Your task to perform on an android device: Open the contacts Image 0: 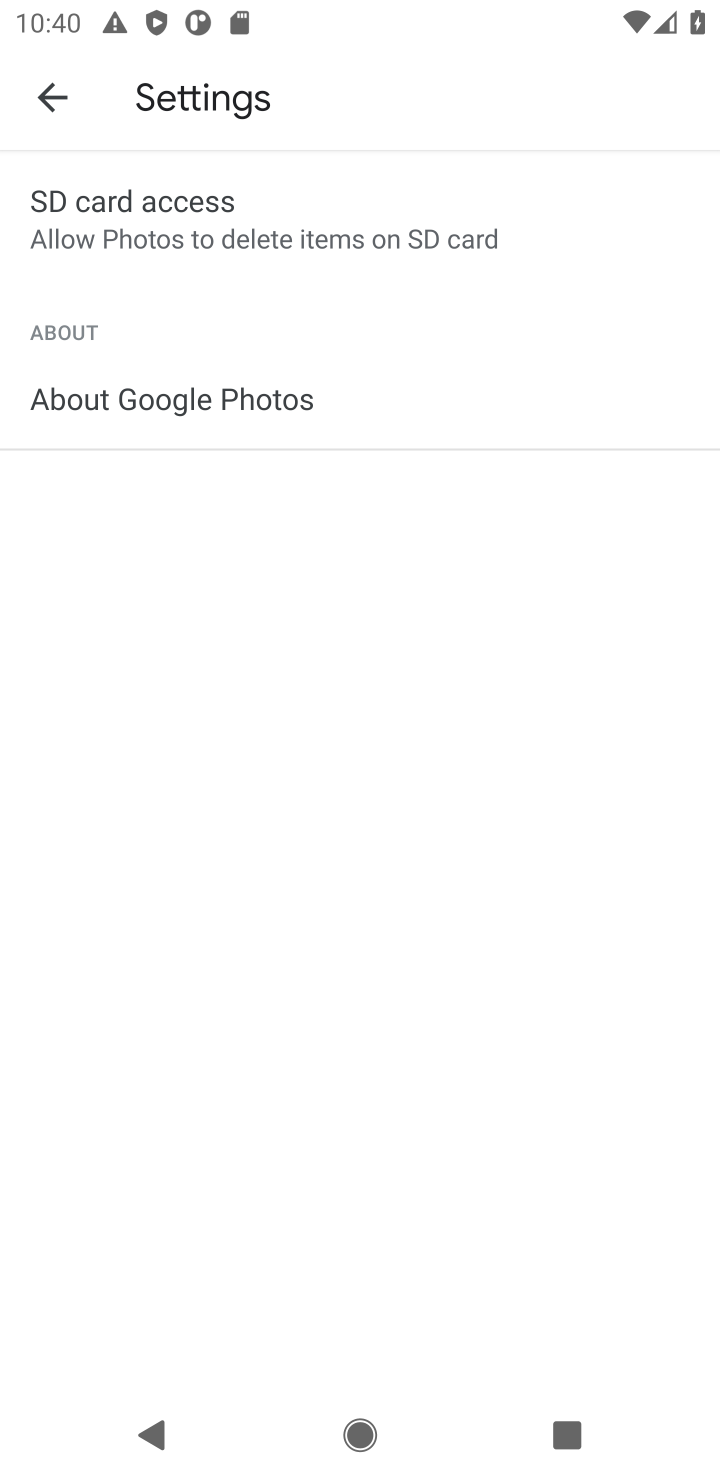
Step 0: press home button
Your task to perform on an android device: Open the contacts Image 1: 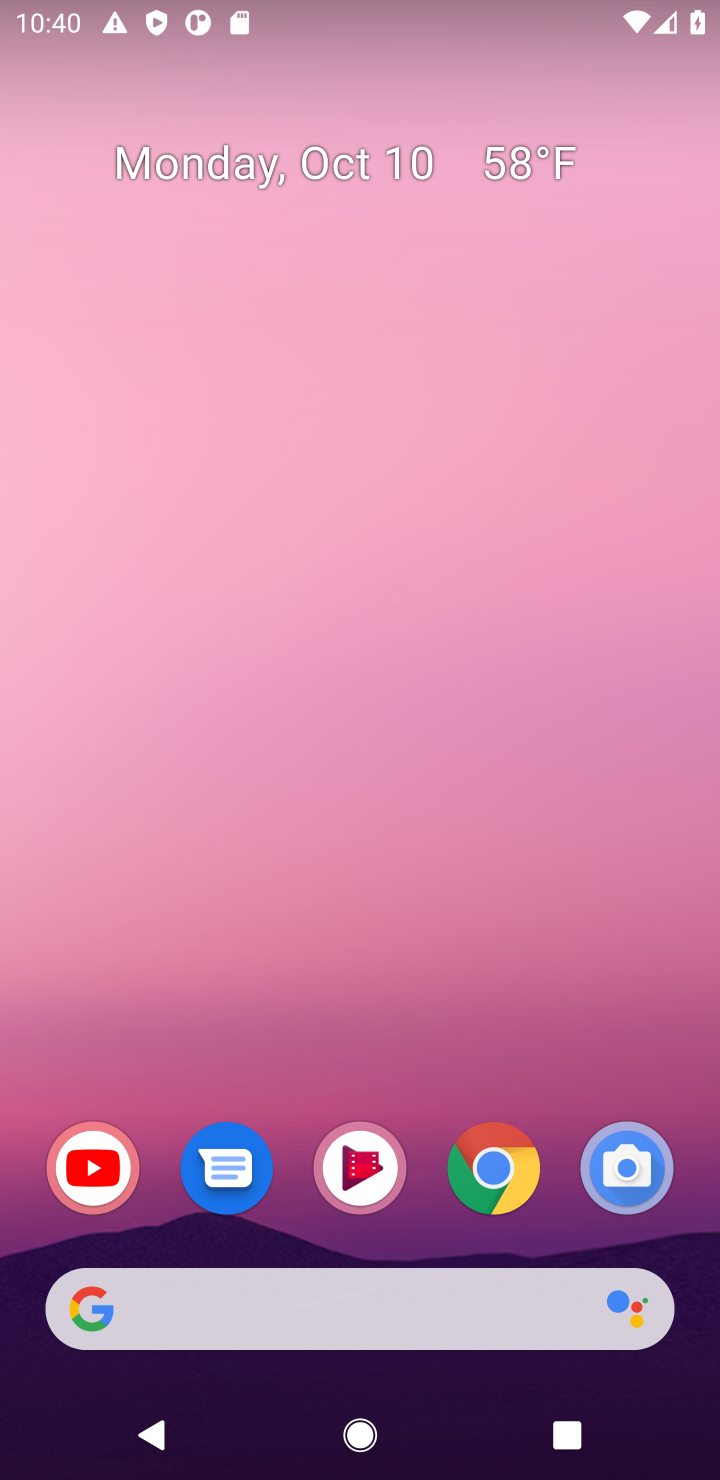
Step 1: drag from (397, 930) to (491, 251)
Your task to perform on an android device: Open the contacts Image 2: 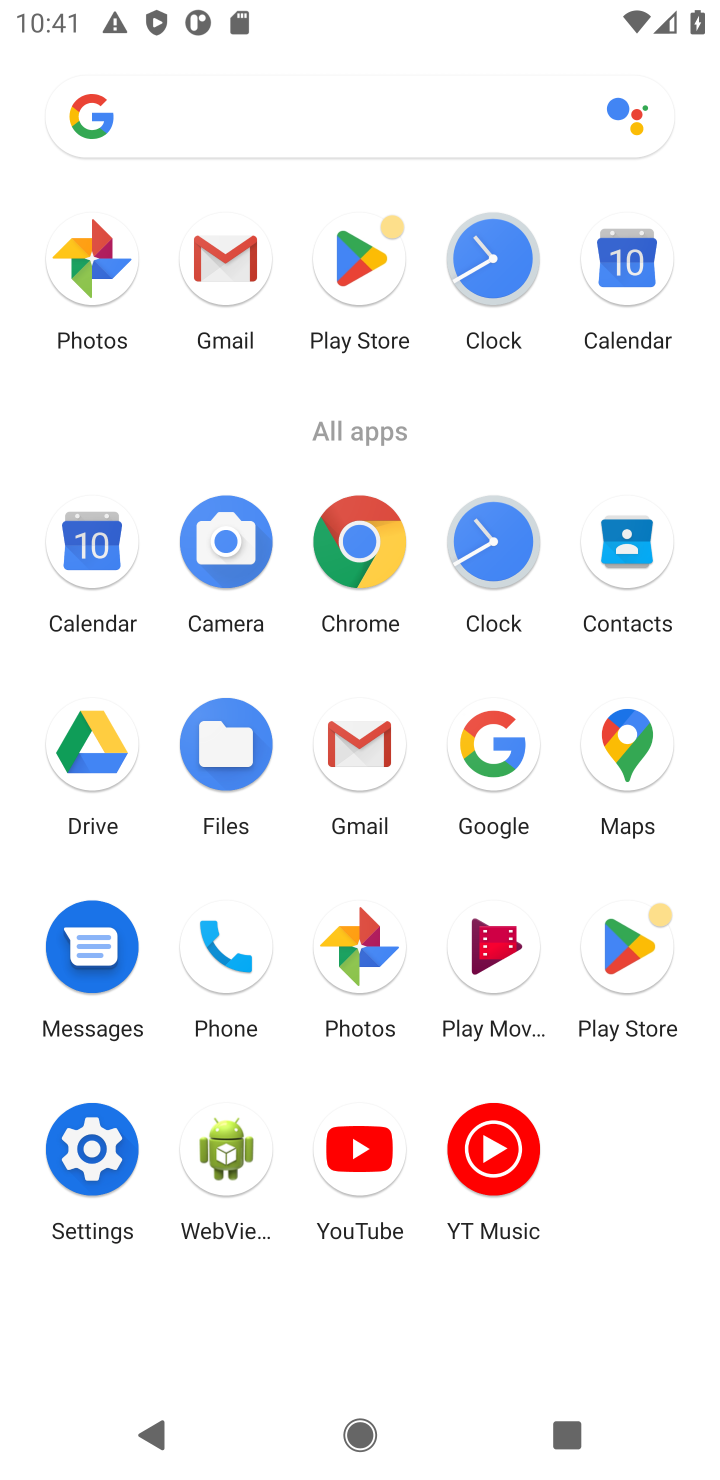
Step 2: click (619, 549)
Your task to perform on an android device: Open the contacts Image 3: 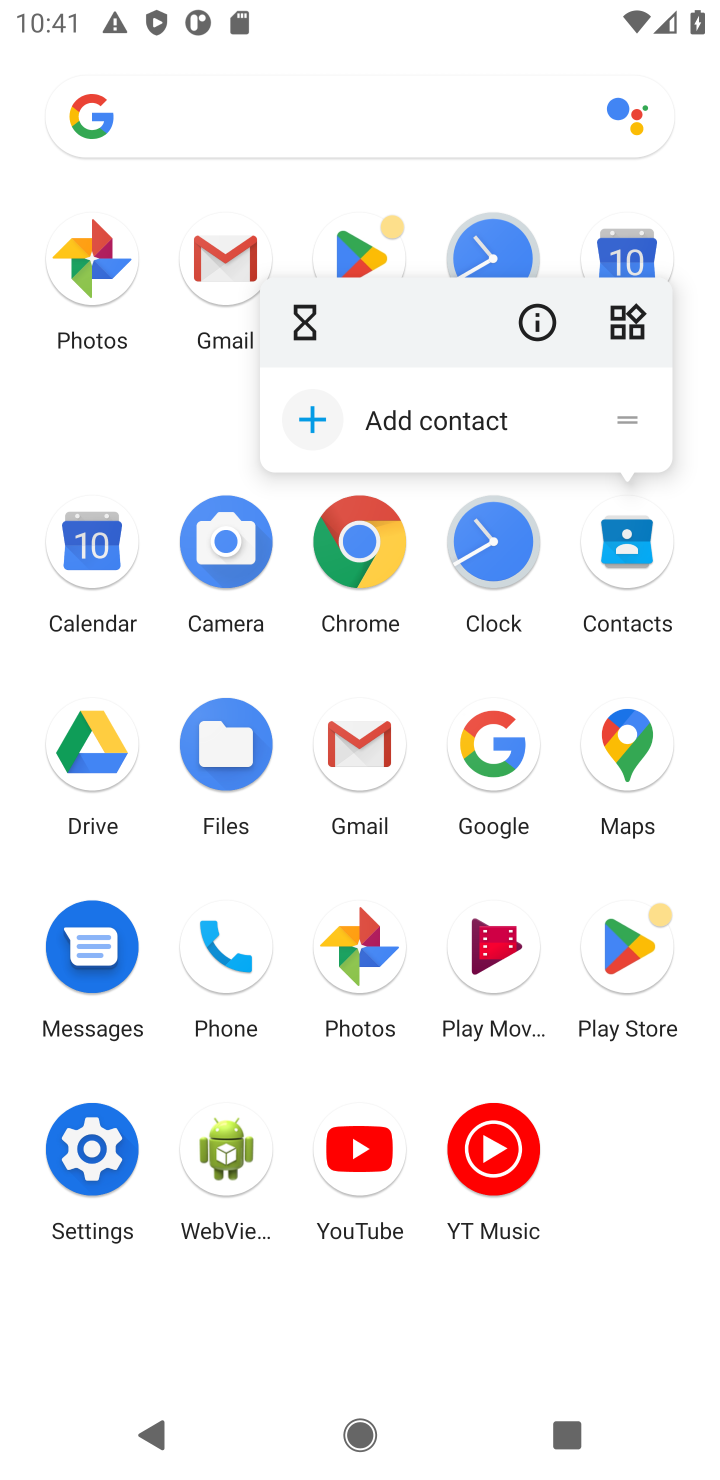
Step 3: click (610, 553)
Your task to perform on an android device: Open the contacts Image 4: 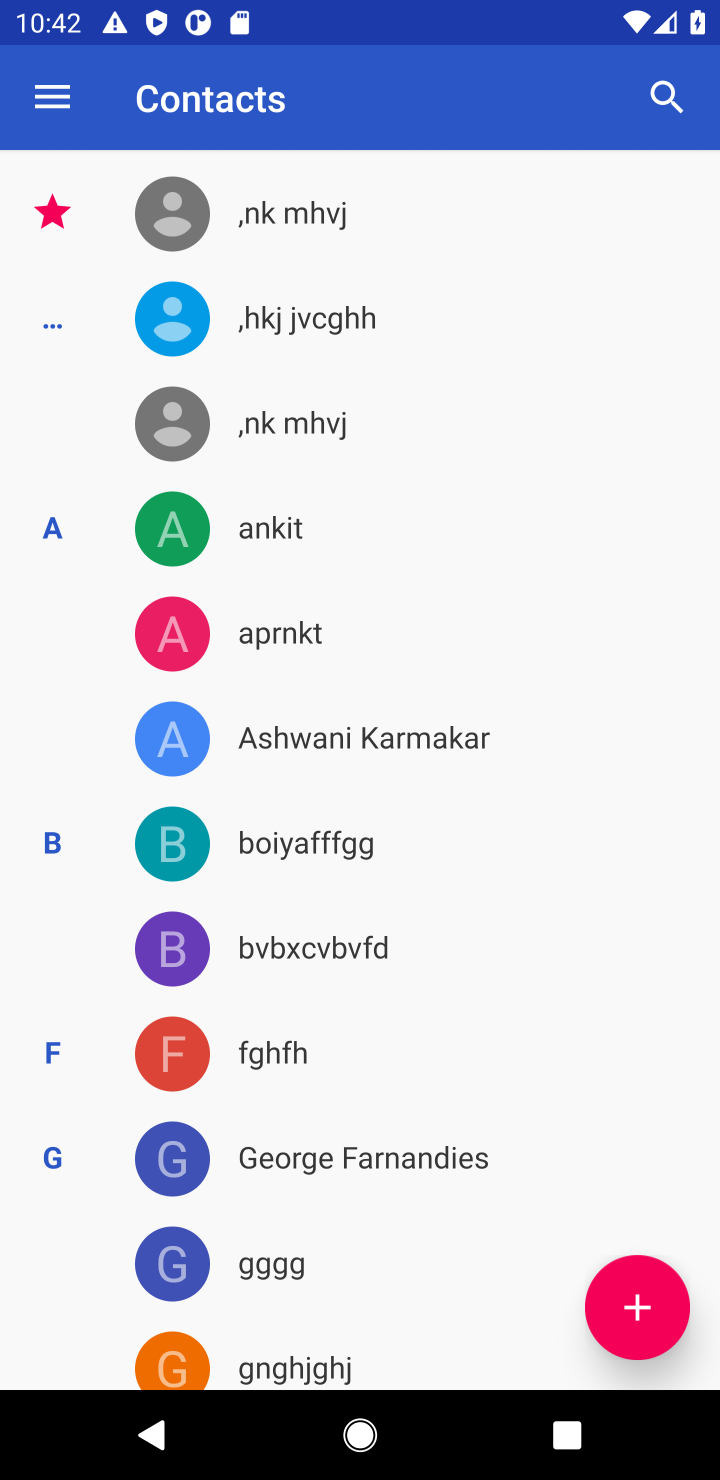
Step 4: task complete